Your task to perform on an android device: Turn on the flashlight Image 0: 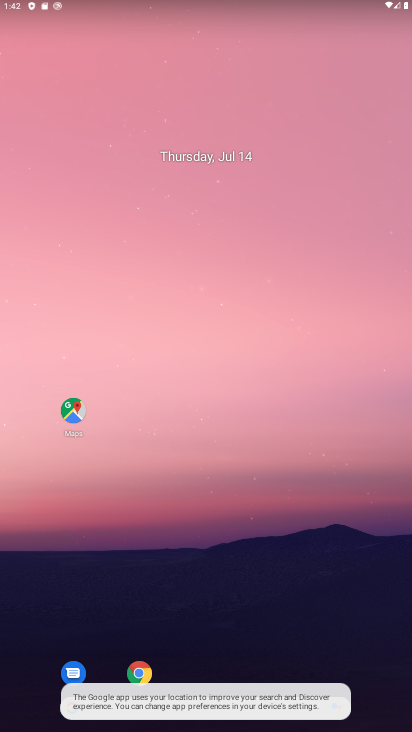
Step 0: drag from (321, 7) to (324, 467)
Your task to perform on an android device: Turn on the flashlight Image 1: 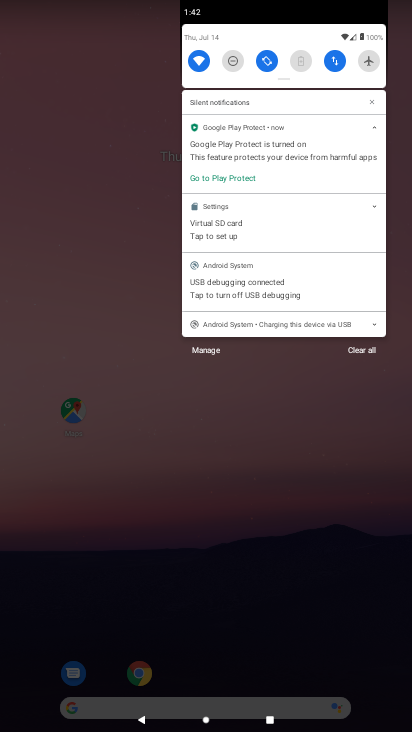
Step 1: drag from (305, 32) to (261, 583)
Your task to perform on an android device: Turn on the flashlight Image 2: 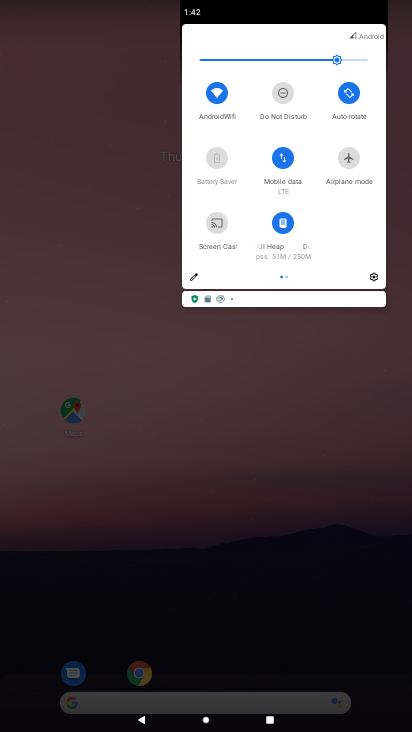
Step 2: click (375, 271)
Your task to perform on an android device: Turn on the flashlight Image 3: 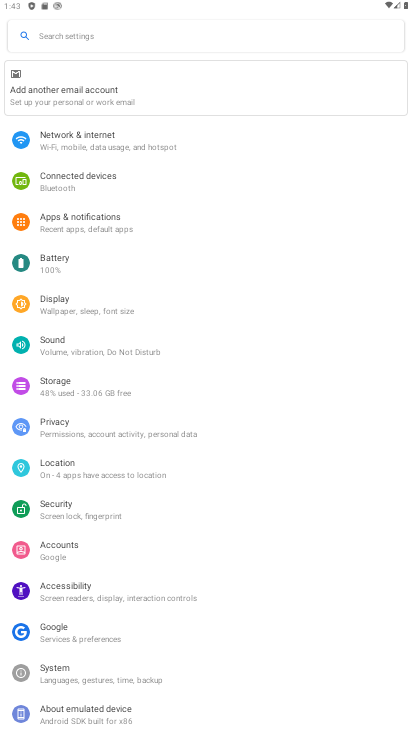
Step 3: task complete